Your task to perform on an android device: turn on the 24-hour format for clock Image 0: 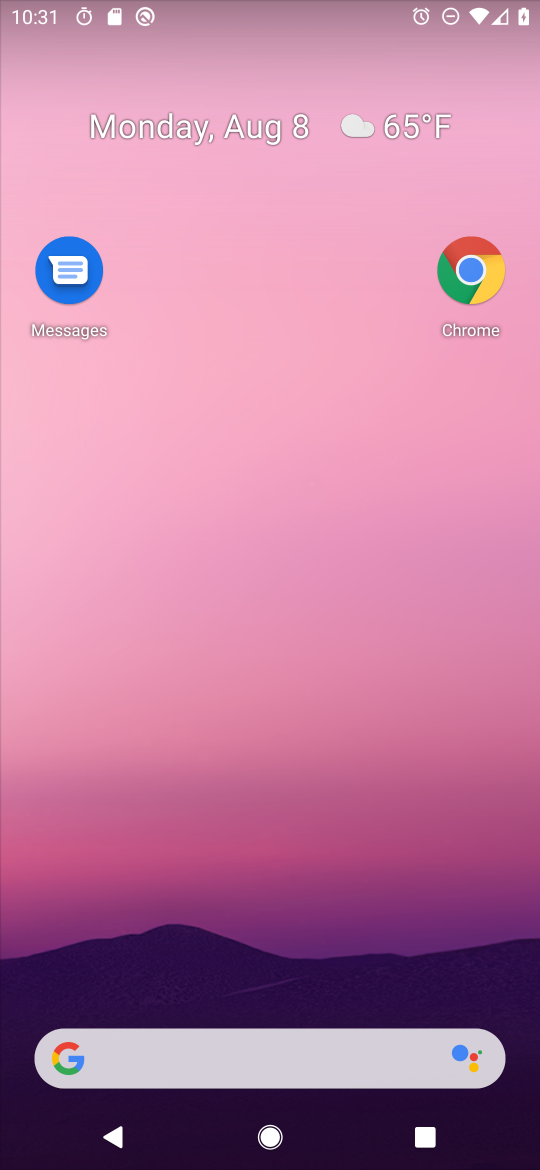
Step 0: drag from (252, 919) to (255, 778)
Your task to perform on an android device: turn on the 24-hour format for clock Image 1: 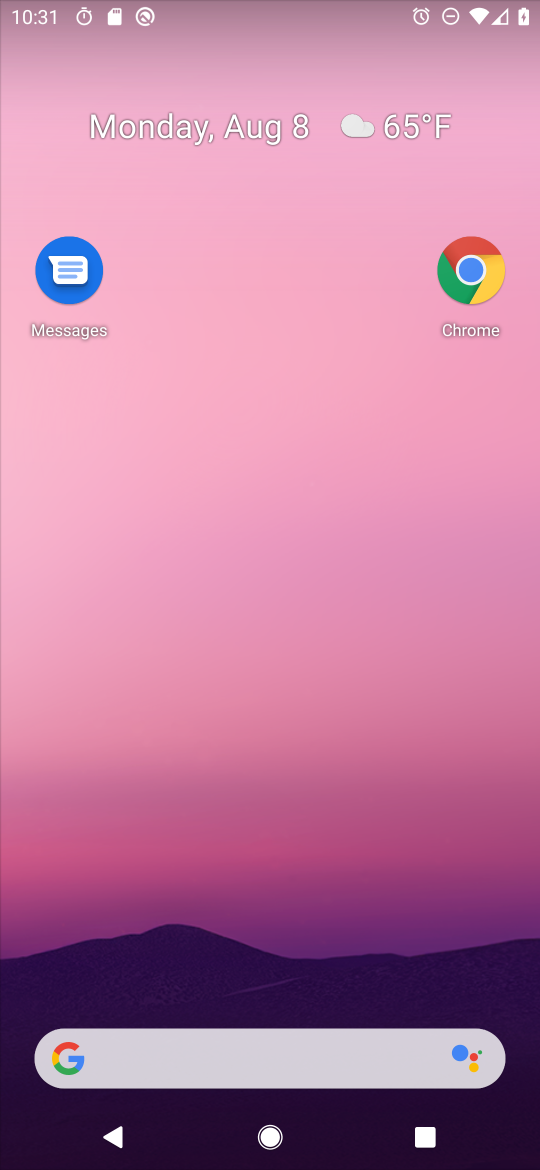
Step 1: drag from (288, 975) to (274, 796)
Your task to perform on an android device: turn on the 24-hour format for clock Image 2: 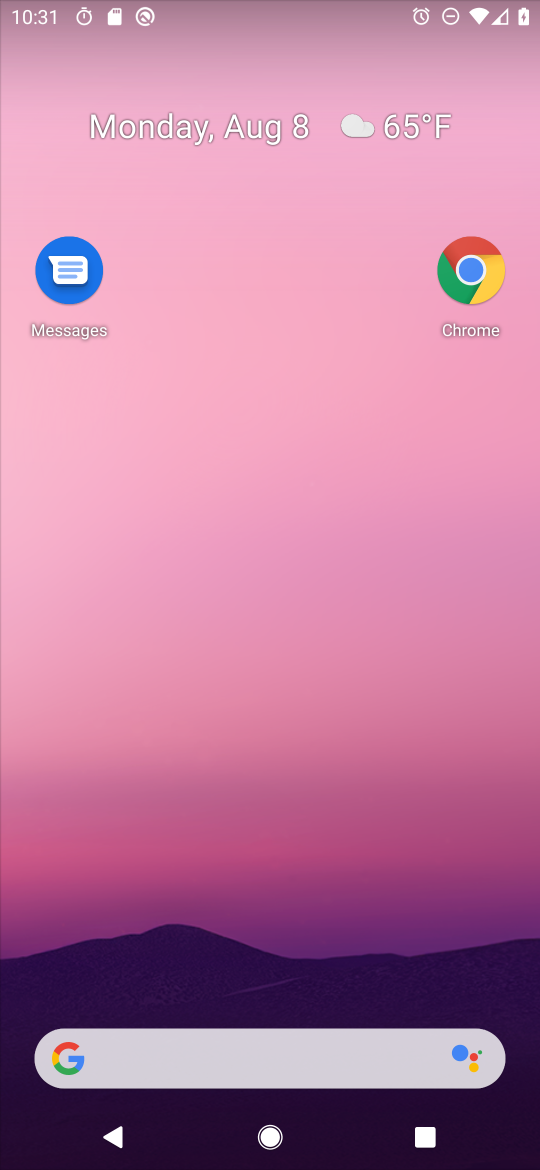
Step 2: drag from (224, 391) to (0, 741)
Your task to perform on an android device: turn on the 24-hour format for clock Image 3: 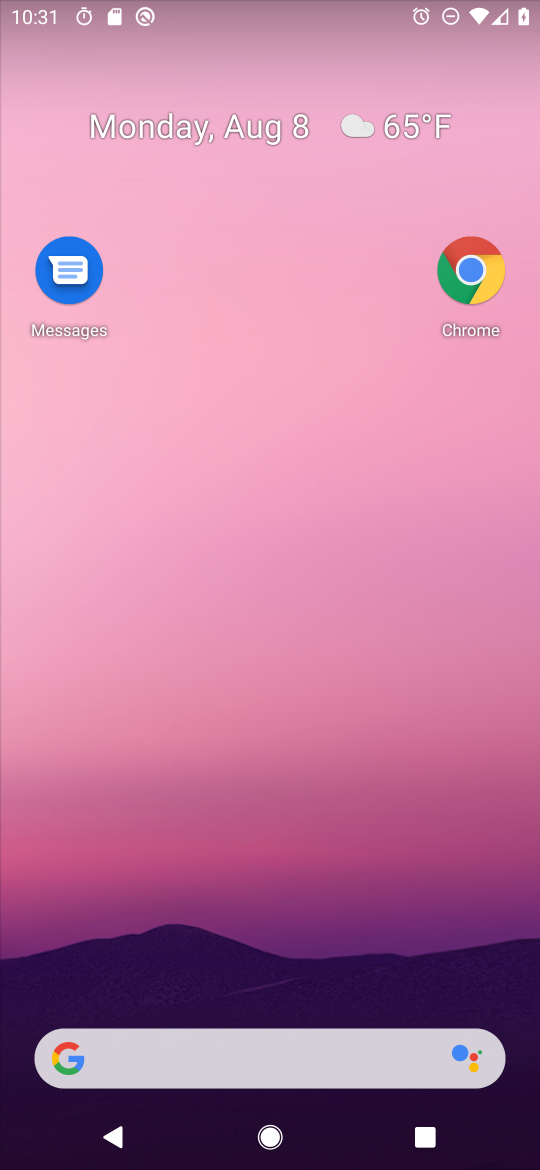
Step 3: drag from (305, 925) to (311, 592)
Your task to perform on an android device: turn on the 24-hour format for clock Image 4: 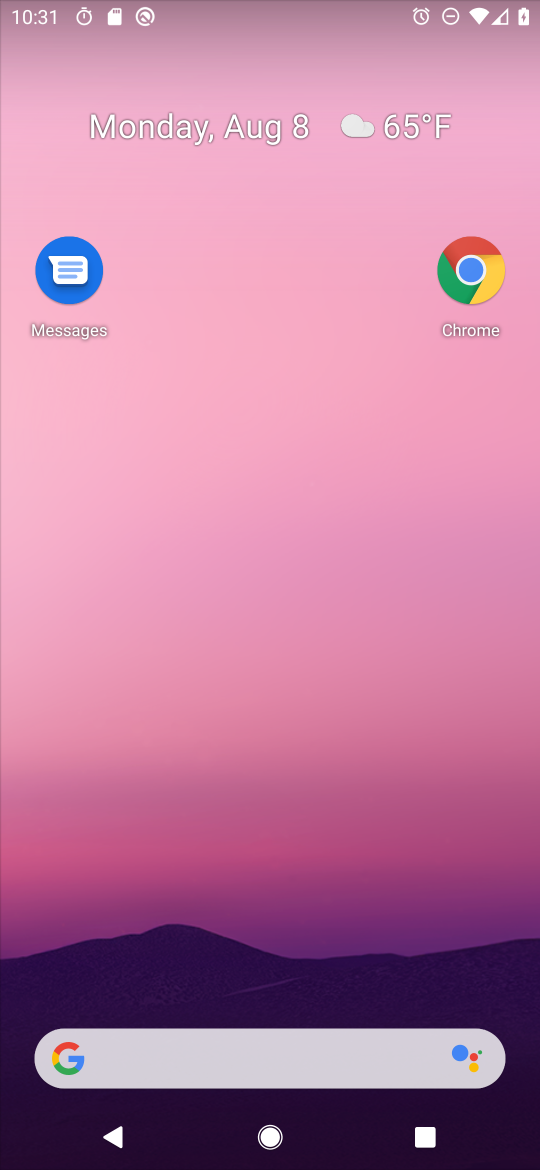
Step 4: drag from (273, 980) to (258, 190)
Your task to perform on an android device: turn on the 24-hour format for clock Image 5: 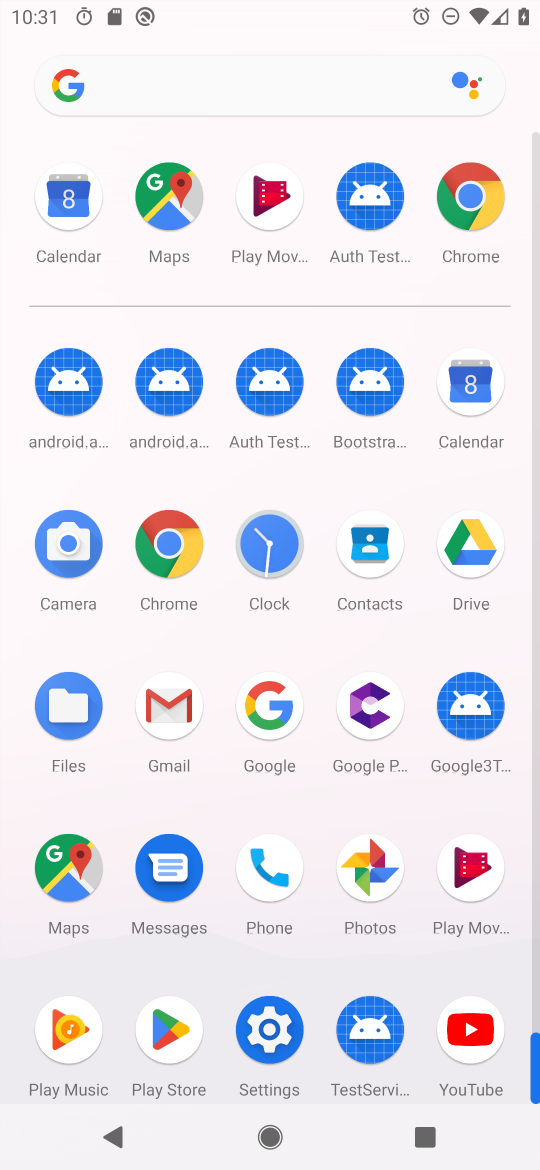
Step 5: drag from (297, 904) to (351, 483)
Your task to perform on an android device: turn on the 24-hour format for clock Image 6: 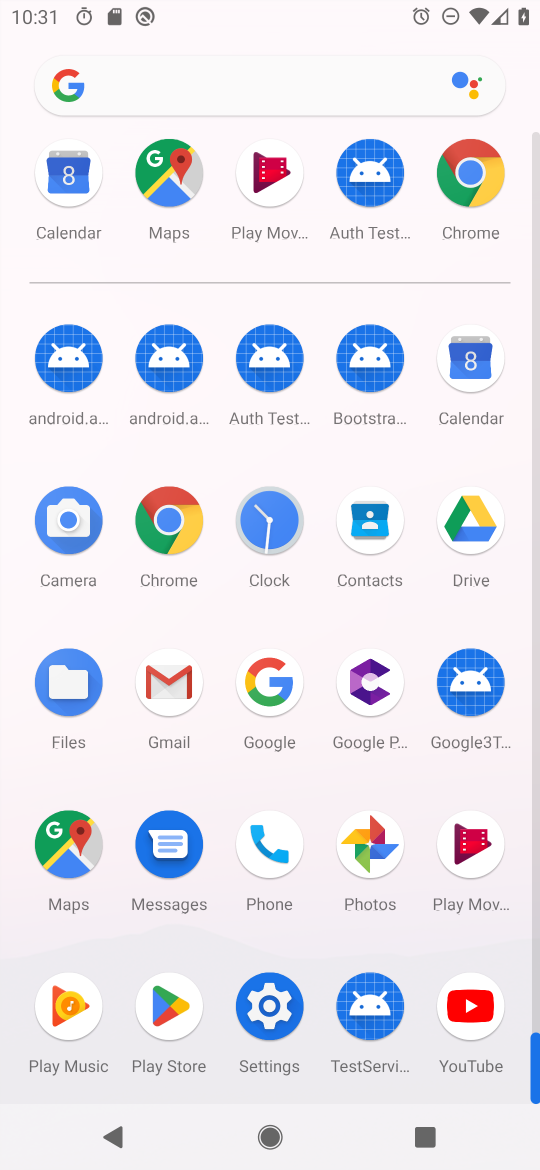
Step 6: click (237, 518)
Your task to perform on an android device: turn on the 24-hour format for clock Image 7: 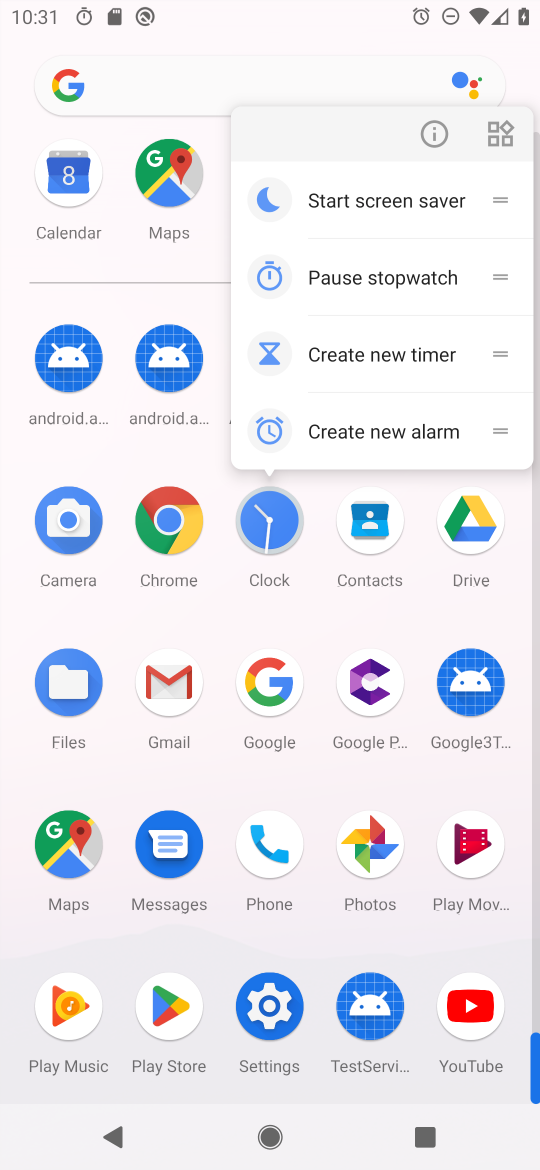
Step 7: click (438, 134)
Your task to perform on an android device: turn on the 24-hour format for clock Image 8: 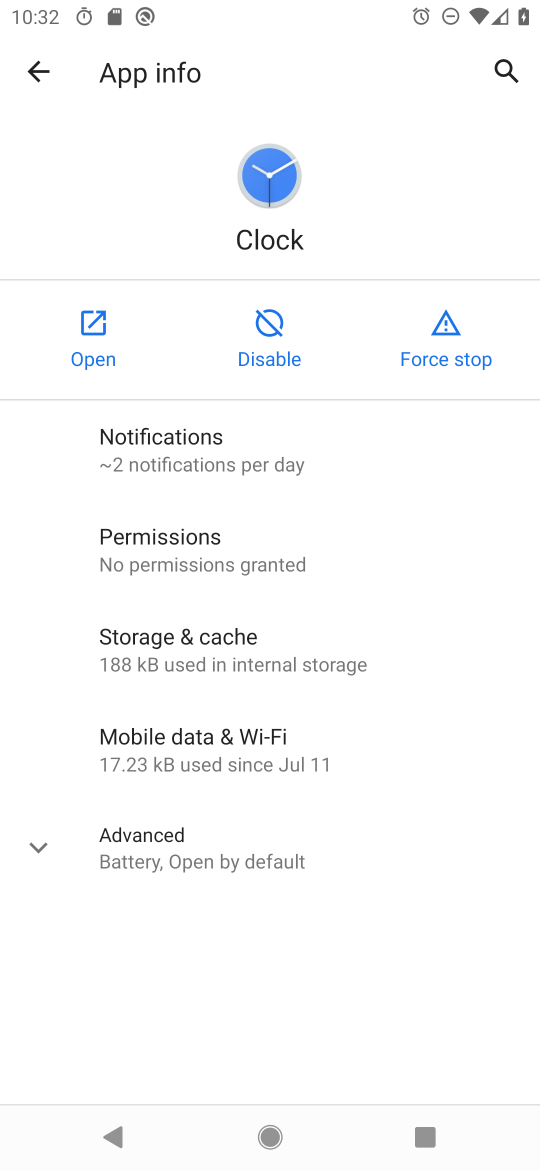
Step 8: drag from (293, 884) to (291, 386)
Your task to perform on an android device: turn on the 24-hour format for clock Image 9: 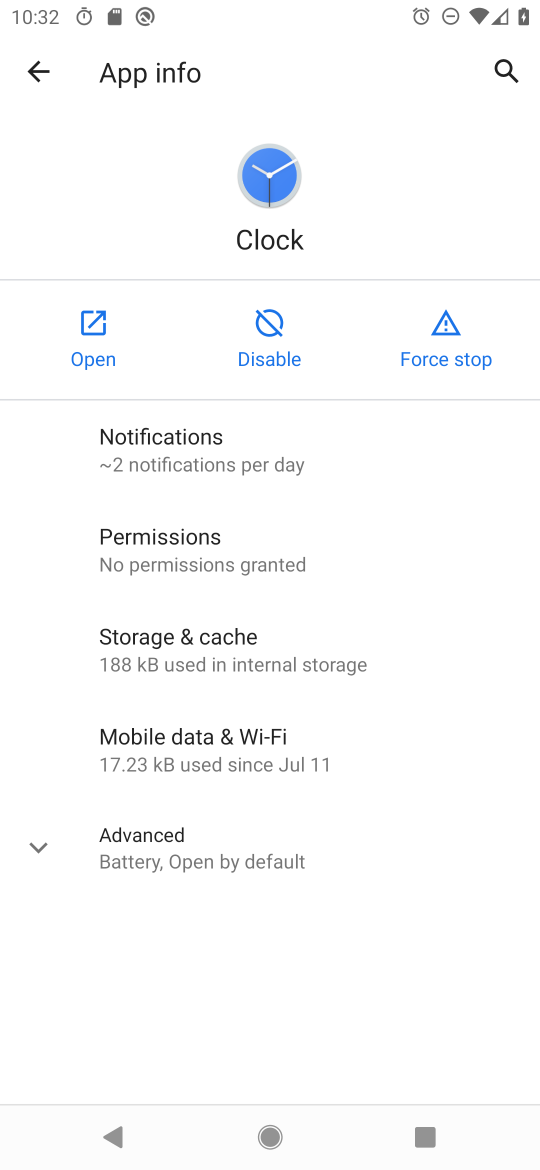
Step 9: drag from (197, 214) to (326, 816)
Your task to perform on an android device: turn on the 24-hour format for clock Image 10: 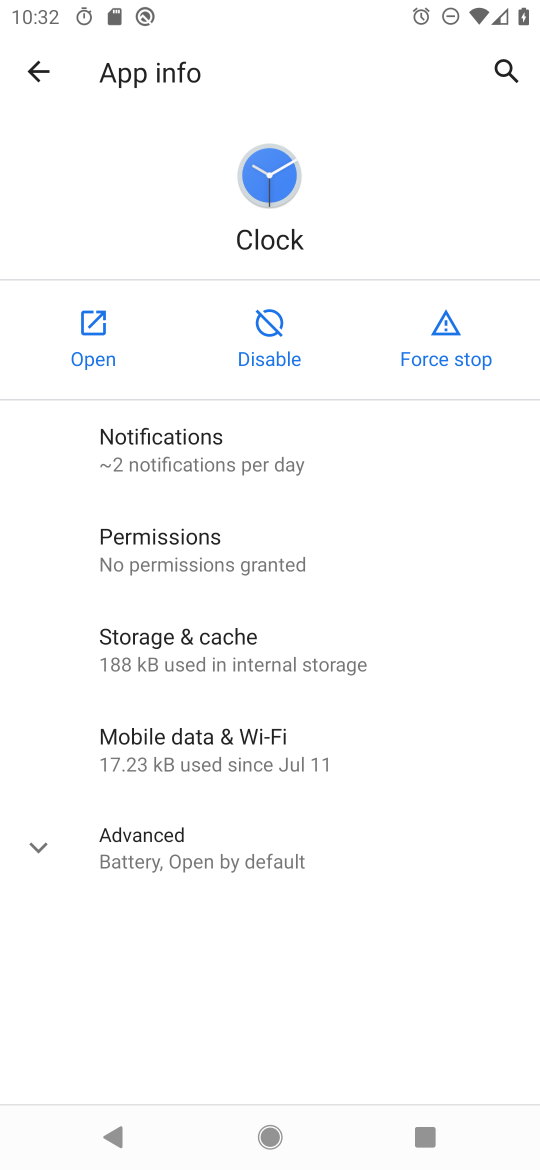
Step 10: click (93, 343)
Your task to perform on an android device: turn on the 24-hour format for clock Image 11: 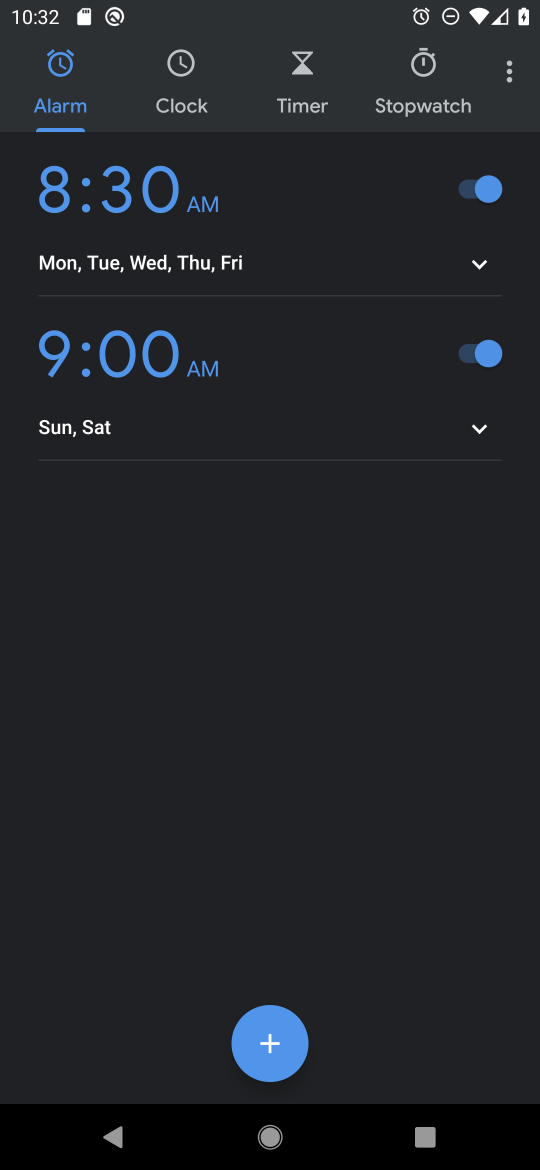
Step 11: drag from (393, 749) to (381, 430)
Your task to perform on an android device: turn on the 24-hour format for clock Image 12: 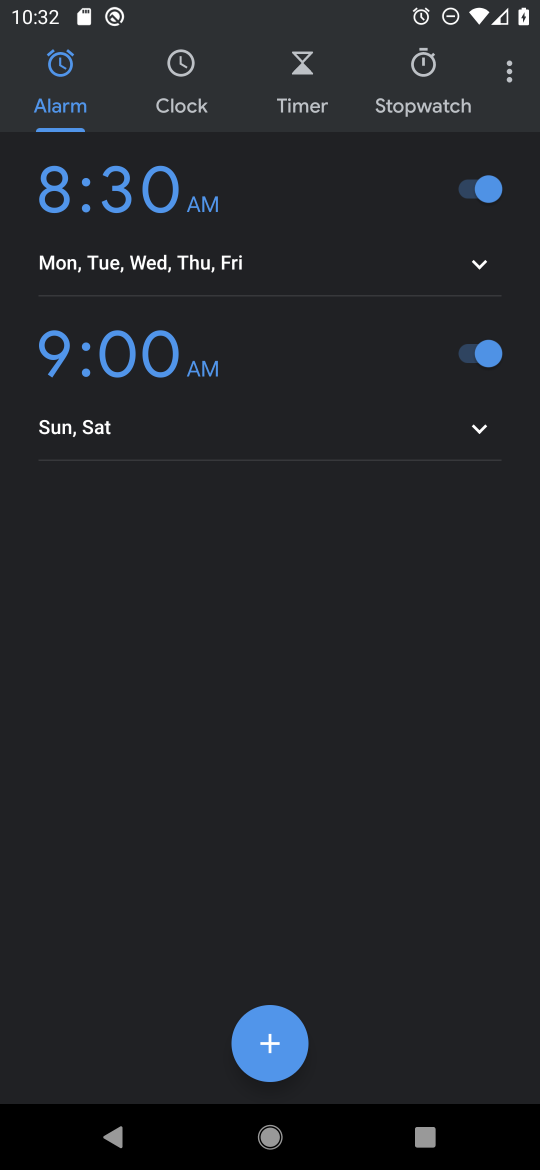
Step 12: drag from (506, 65) to (369, 125)
Your task to perform on an android device: turn on the 24-hour format for clock Image 13: 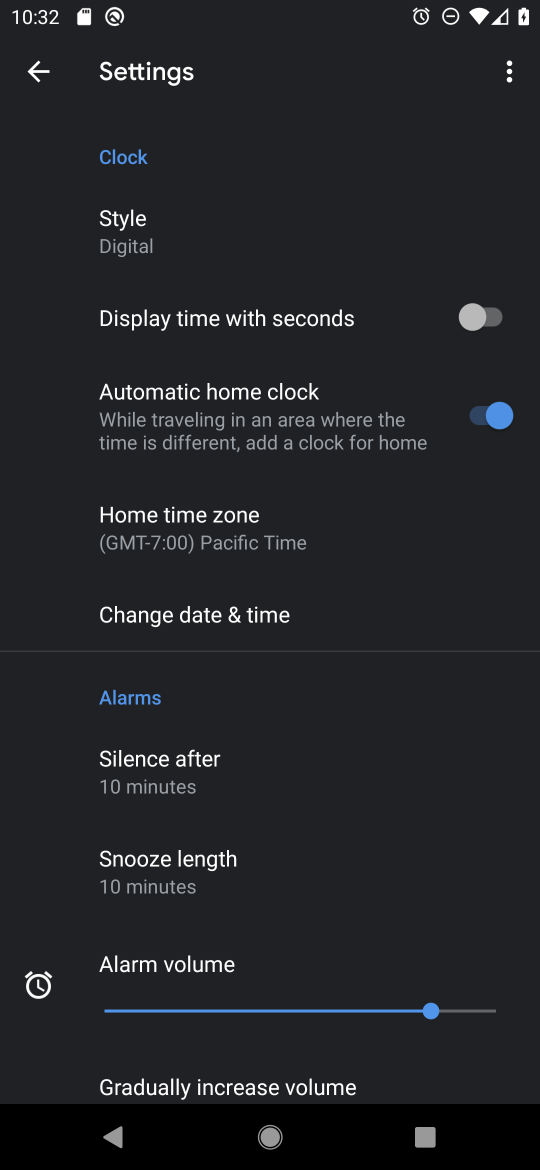
Step 13: click (201, 614)
Your task to perform on an android device: turn on the 24-hour format for clock Image 14: 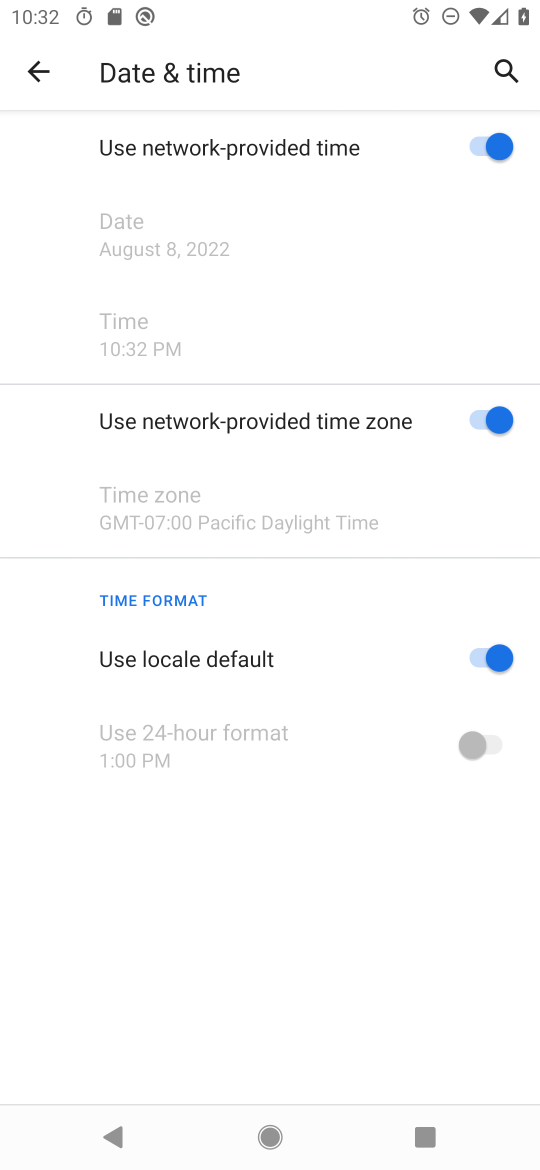
Step 14: click (508, 656)
Your task to perform on an android device: turn on the 24-hour format for clock Image 15: 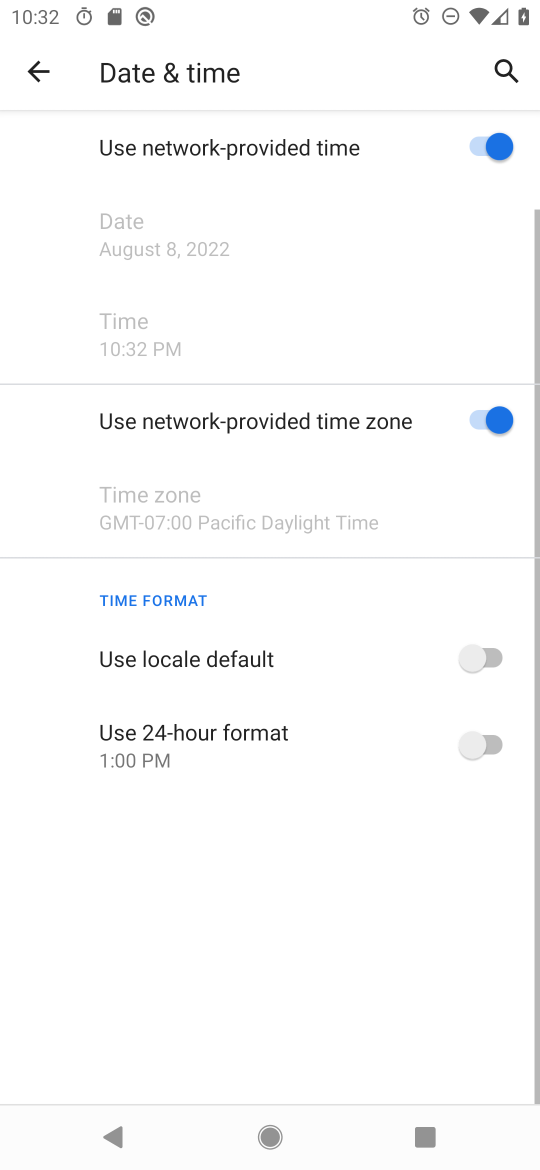
Step 15: click (474, 748)
Your task to perform on an android device: turn on the 24-hour format for clock Image 16: 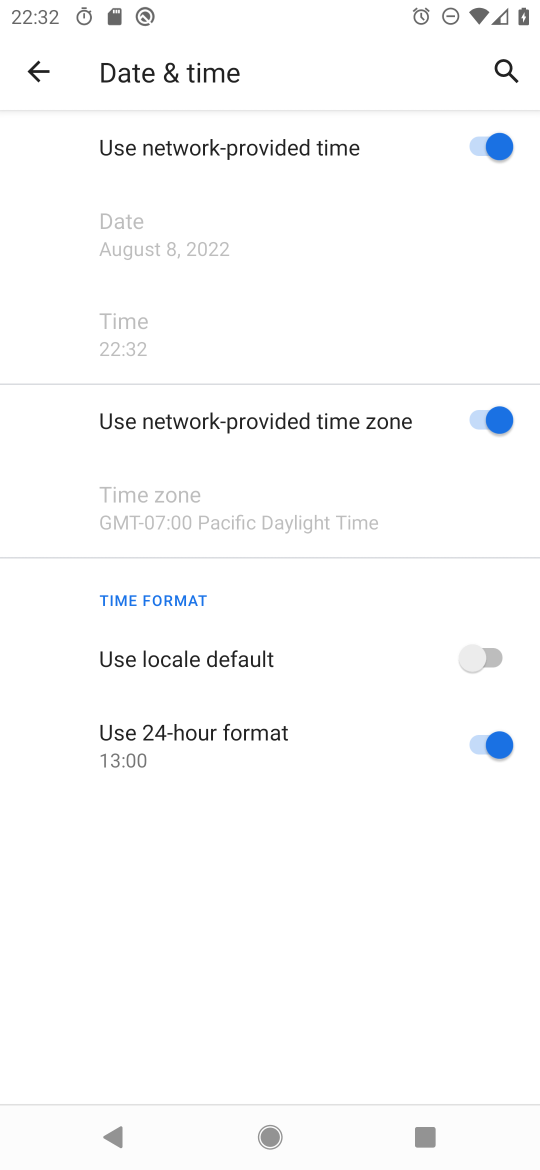
Step 16: task complete